Your task to perform on an android device: Go to settings Image 0: 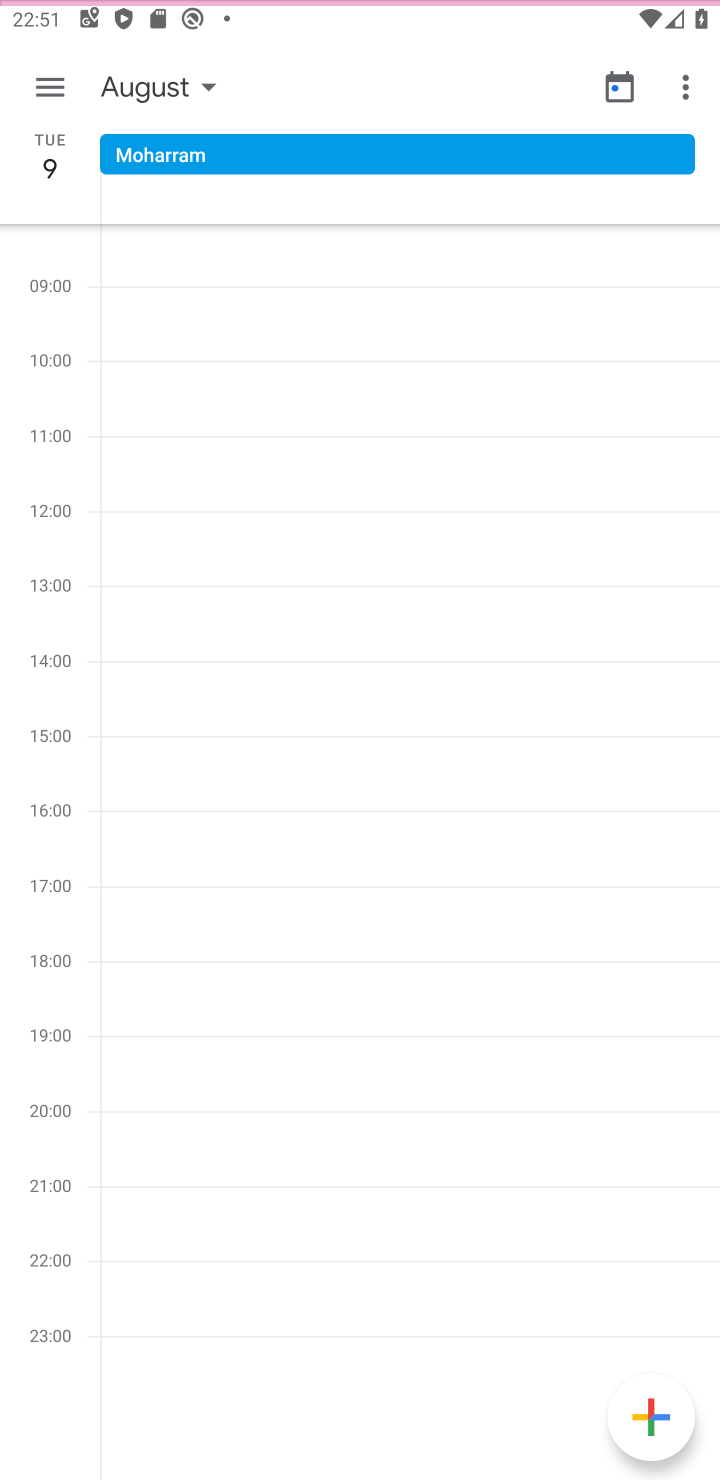
Step 0: press home button
Your task to perform on an android device: Go to settings Image 1: 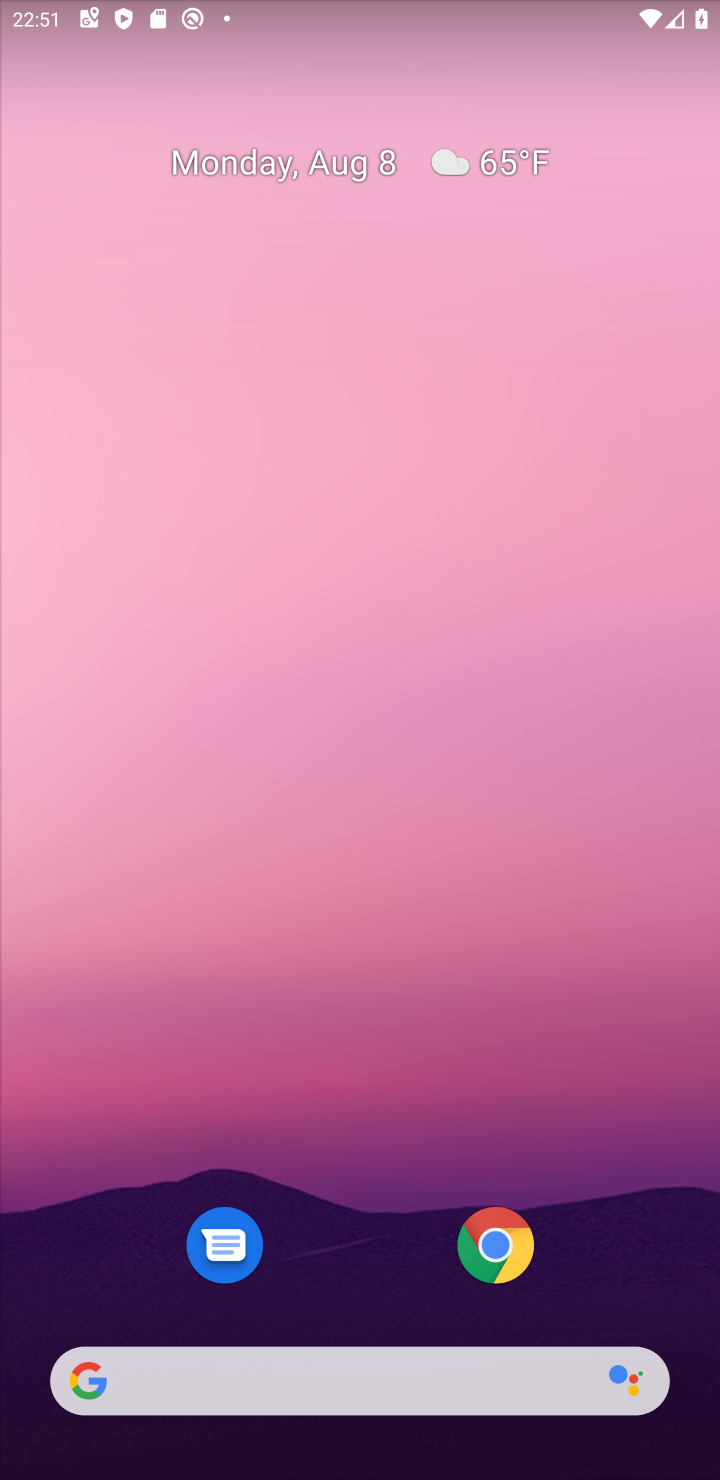
Step 1: drag from (381, 1175) to (380, 129)
Your task to perform on an android device: Go to settings Image 2: 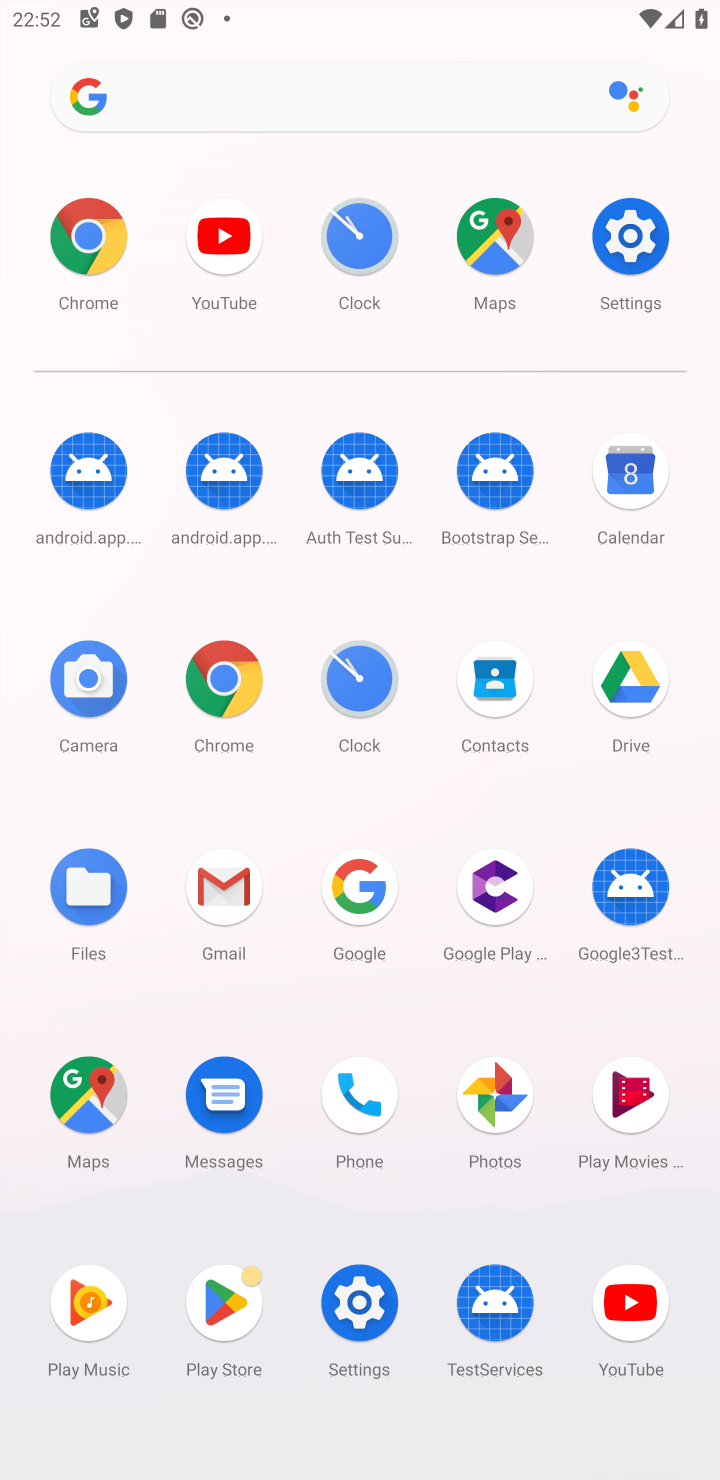
Step 2: click (630, 238)
Your task to perform on an android device: Go to settings Image 3: 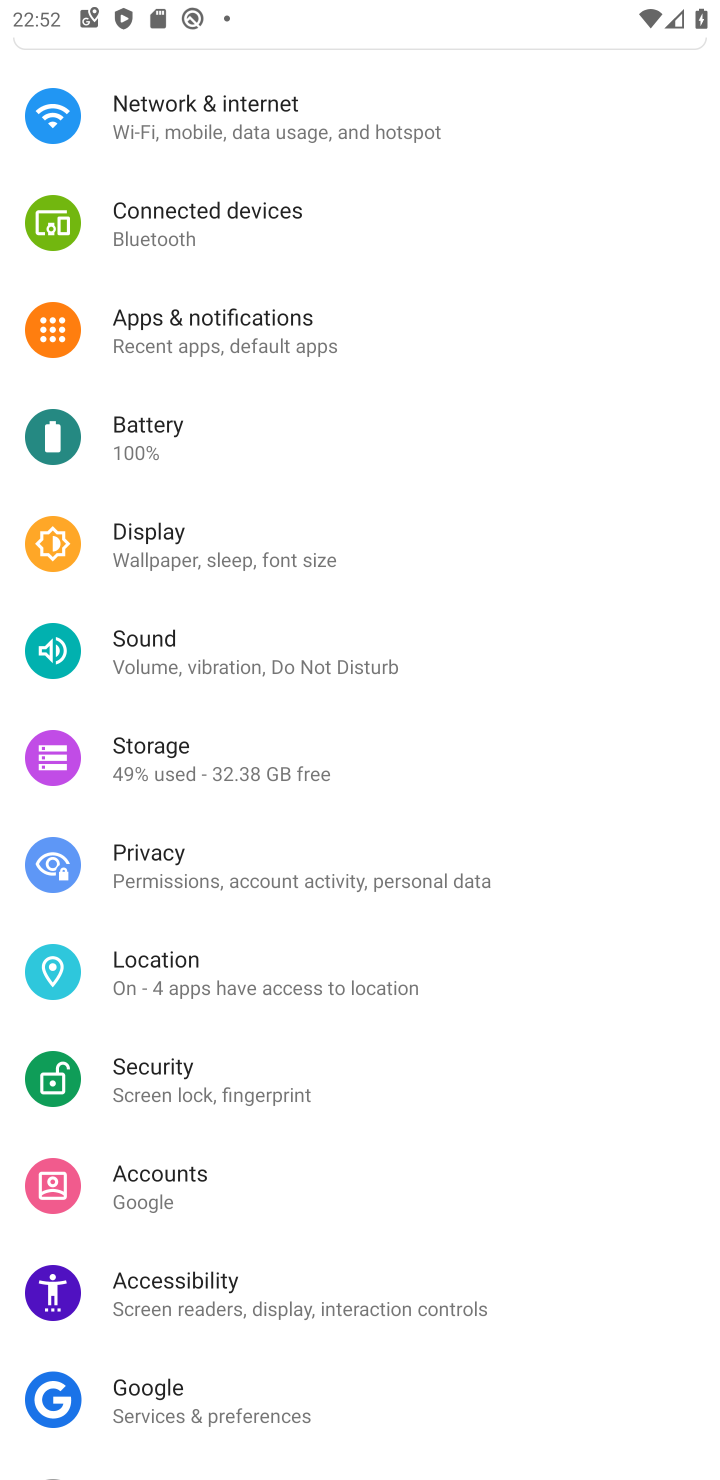
Step 3: task complete